Your task to perform on an android device: What's on my calendar tomorrow? Image 0: 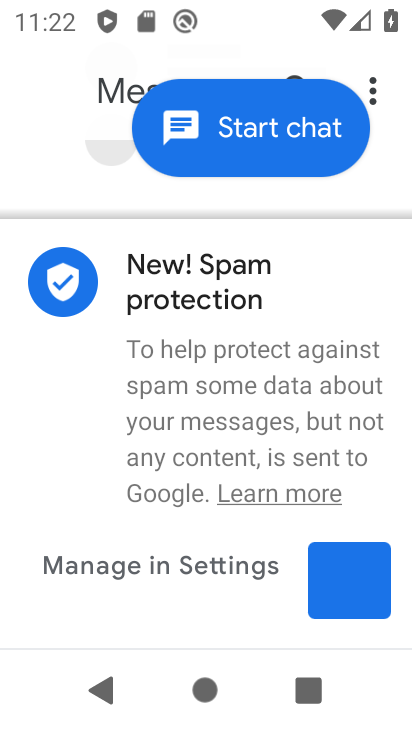
Step 0: press home button
Your task to perform on an android device: What's on my calendar tomorrow? Image 1: 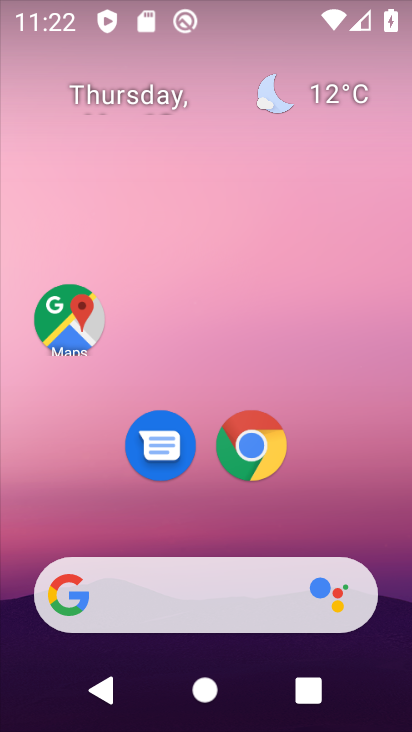
Step 1: drag from (187, 559) to (174, 31)
Your task to perform on an android device: What's on my calendar tomorrow? Image 2: 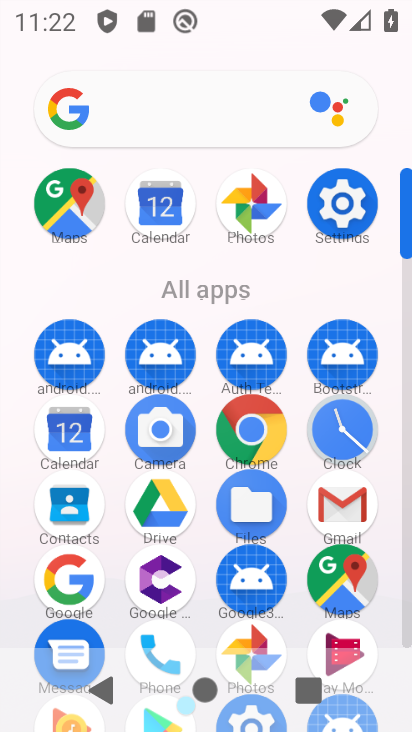
Step 2: click (57, 445)
Your task to perform on an android device: What's on my calendar tomorrow? Image 3: 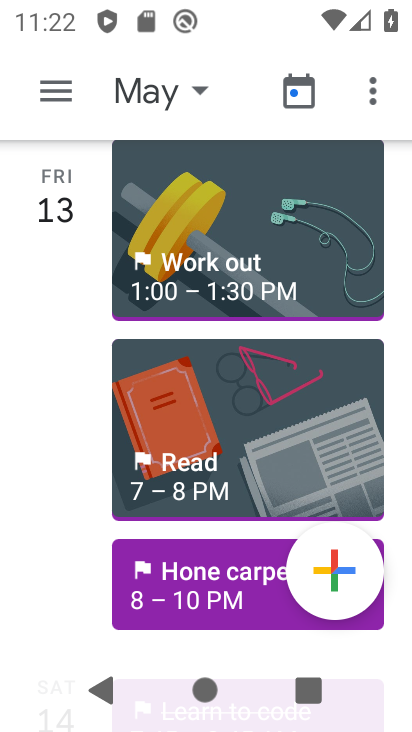
Step 3: task complete